Your task to perform on an android device: Go to Maps Image 0: 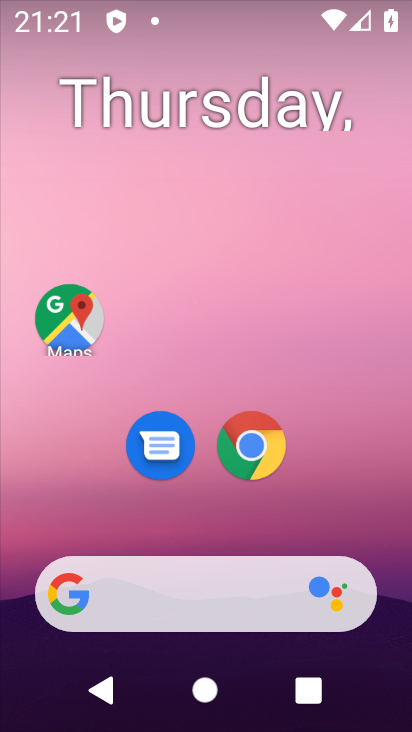
Step 0: press home button
Your task to perform on an android device: Go to Maps Image 1: 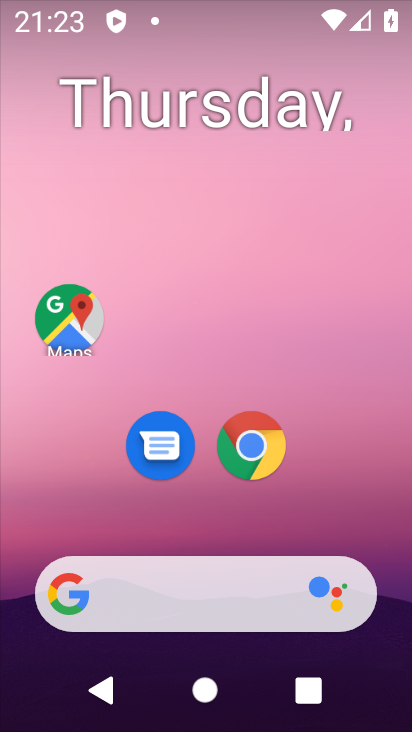
Step 1: click (71, 316)
Your task to perform on an android device: Go to Maps Image 2: 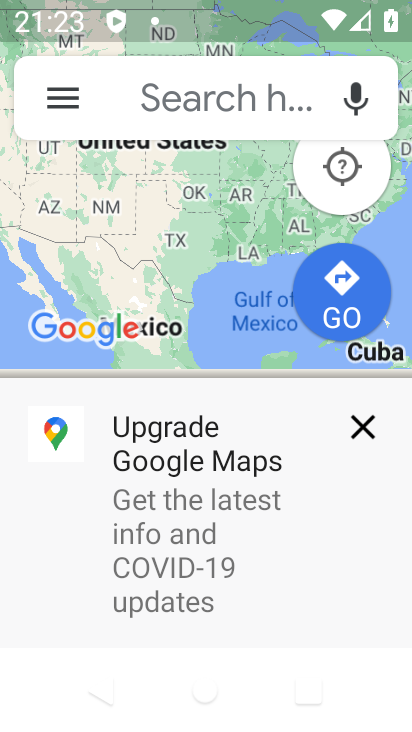
Step 2: click (357, 424)
Your task to perform on an android device: Go to Maps Image 3: 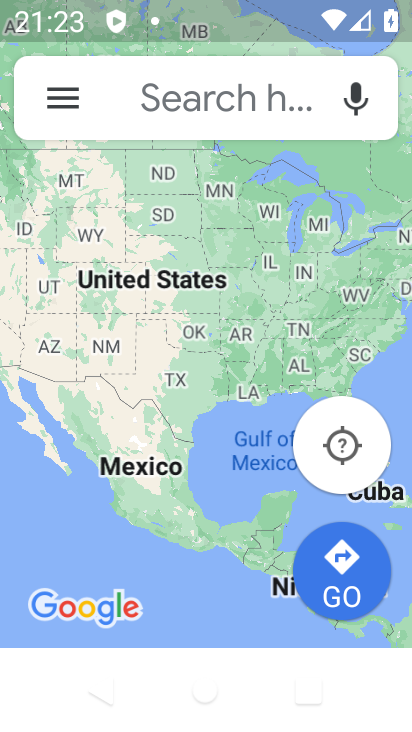
Step 3: task complete